Your task to perform on an android device: Search for Italian restaurants on Maps Image 0: 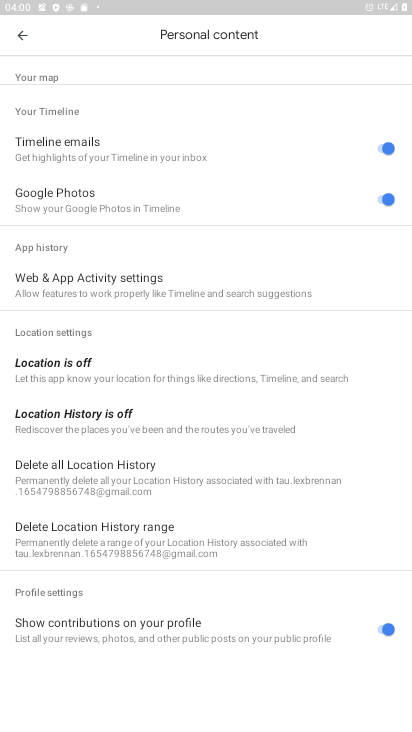
Step 0: press home button
Your task to perform on an android device: Search for Italian restaurants on Maps Image 1: 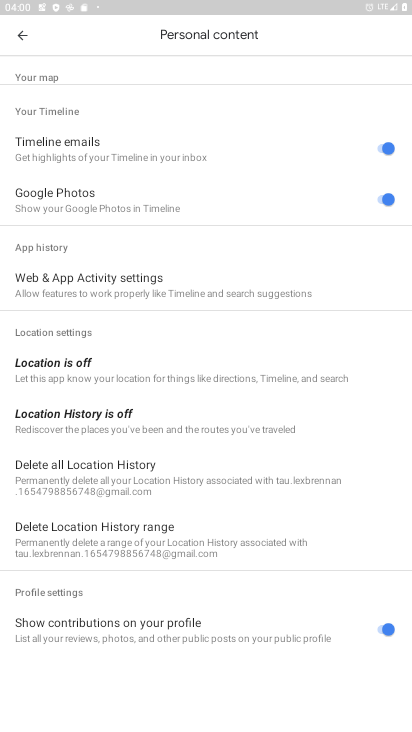
Step 1: press home button
Your task to perform on an android device: Search for Italian restaurants on Maps Image 2: 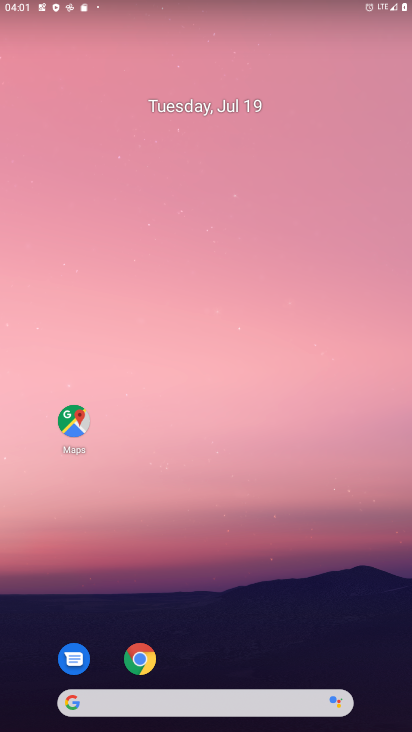
Step 2: drag from (266, 667) to (257, 80)
Your task to perform on an android device: Search for Italian restaurants on Maps Image 3: 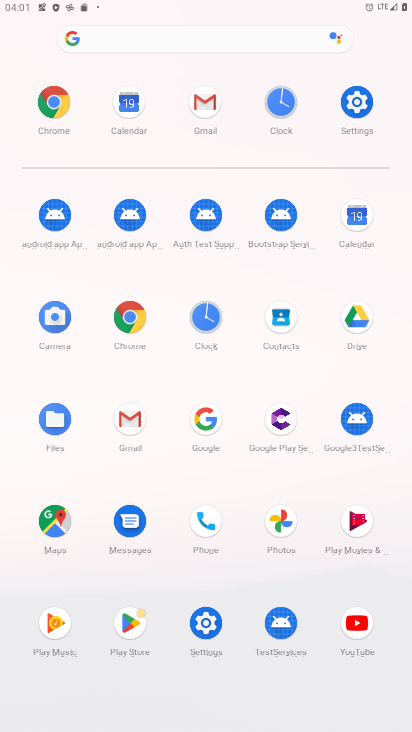
Step 3: click (46, 521)
Your task to perform on an android device: Search for Italian restaurants on Maps Image 4: 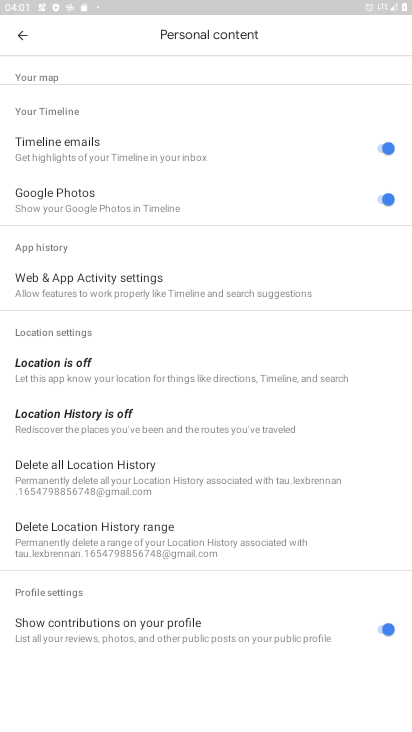
Step 4: click (31, 29)
Your task to perform on an android device: Search for Italian restaurants on Maps Image 5: 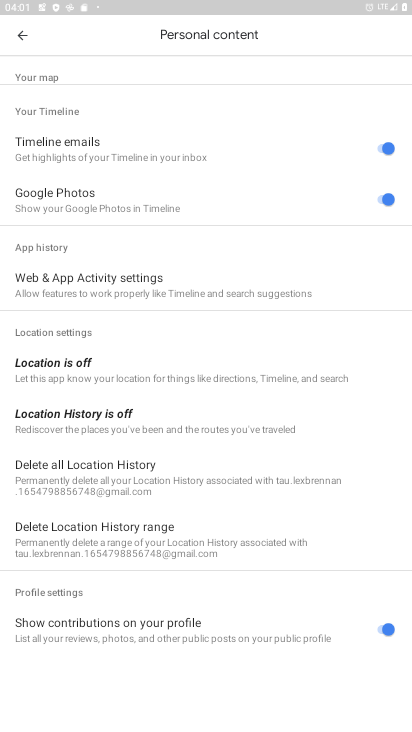
Step 5: click (31, 29)
Your task to perform on an android device: Search for Italian restaurants on Maps Image 6: 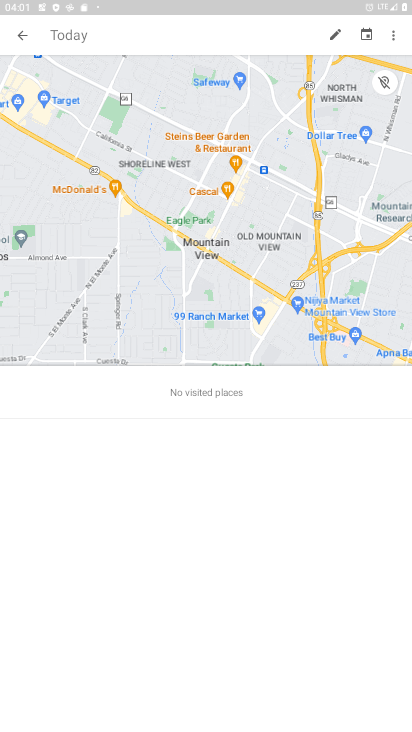
Step 6: click (31, 29)
Your task to perform on an android device: Search for Italian restaurants on Maps Image 7: 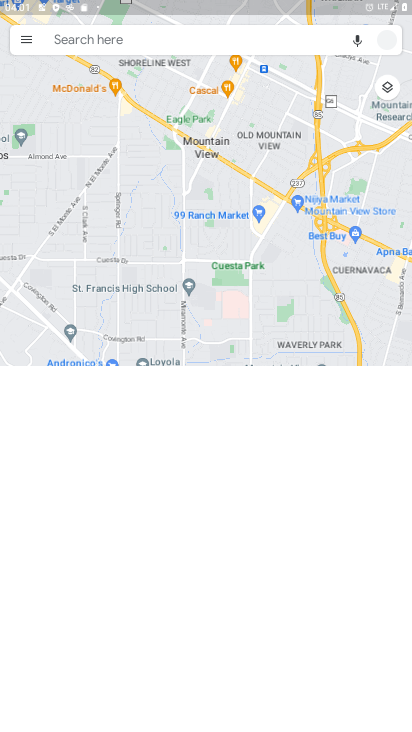
Step 7: click (143, 40)
Your task to perform on an android device: Search for Italian restaurants on Maps Image 8: 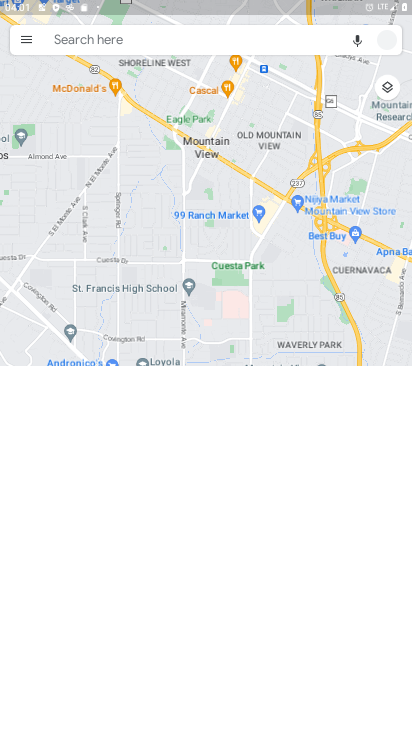
Step 8: click (143, 40)
Your task to perform on an android device: Search for Italian restaurants on Maps Image 9: 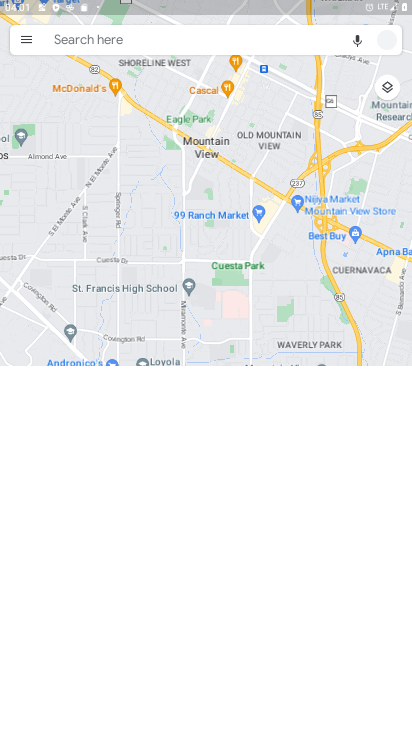
Step 9: click (143, 40)
Your task to perform on an android device: Search for Italian restaurants on Maps Image 10: 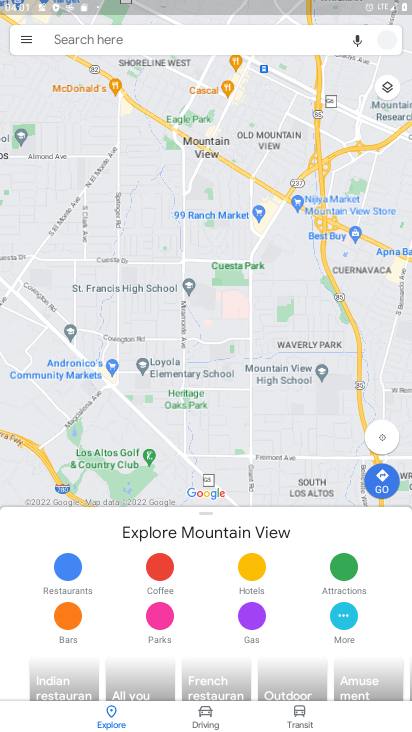
Step 10: click (143, 40)
Your task to perform on an android device: Search for Italian restaurants on Maps Image 11: 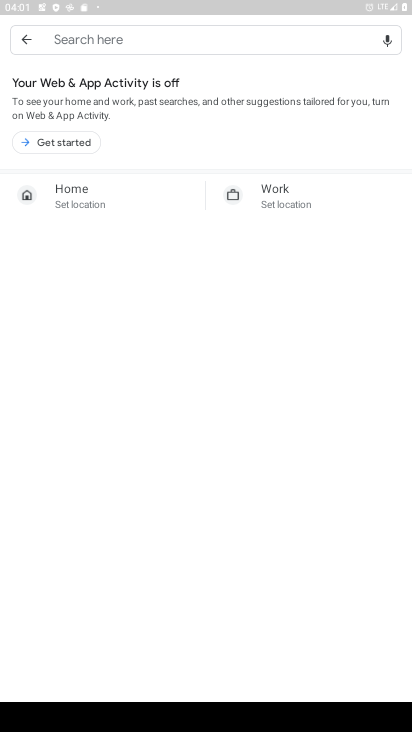
Step 11: type "Italian restaurants "
Your task to perform on an android device: Search for Italian restaurants on Maps Image 12: 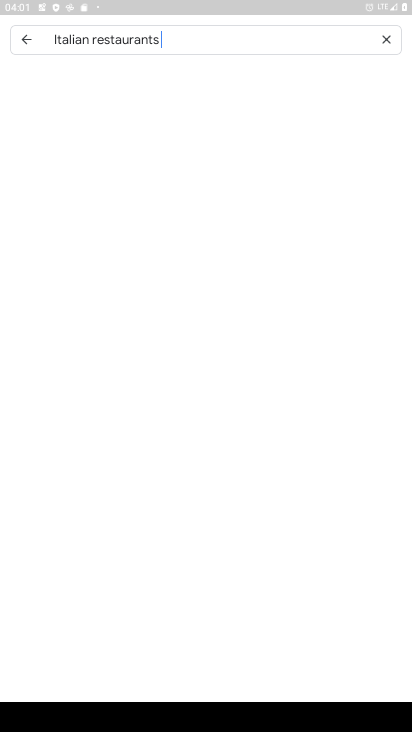
Step 12: type ""
Your task to perform on an android device: Search for Italian restaurants on Maps Image 13: 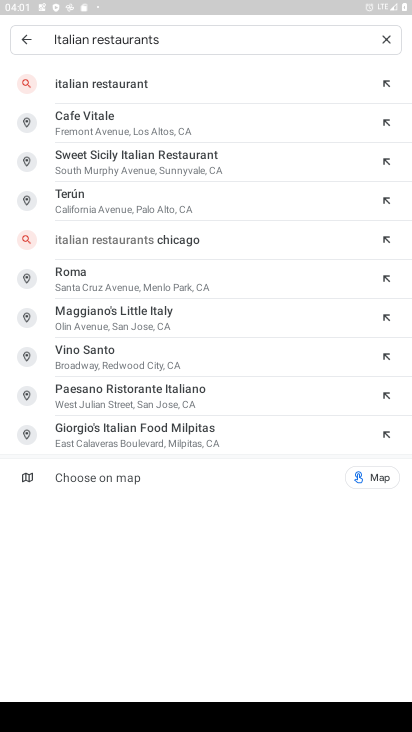
Step 13: click (85, 77)
Your task to perform on an android device: Search for Italian restaurants on Maps Image 14: 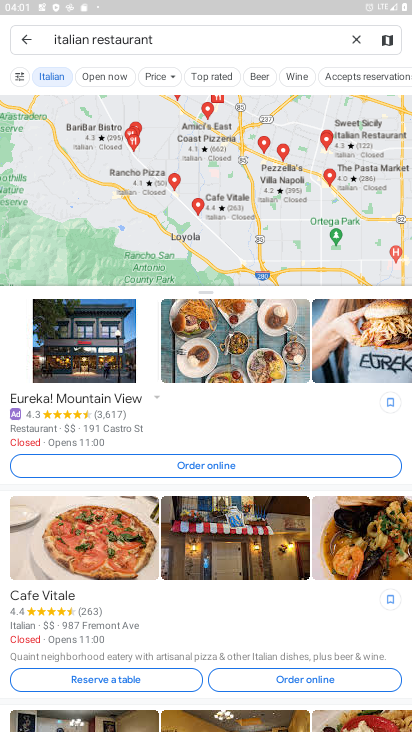
Step 14: task complete